Your task to perform on an android device: Toggle the flashlight Image 0: 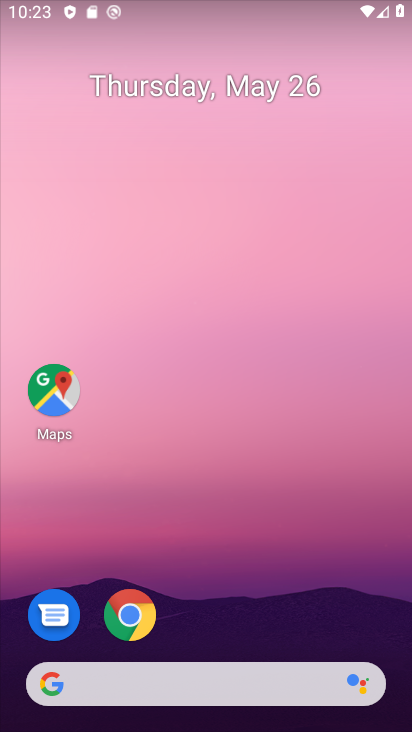
Step 0: drag from (315, 0) to (285, 324)
Your task to perform on an android device: Toggle the flashlight Image 1: 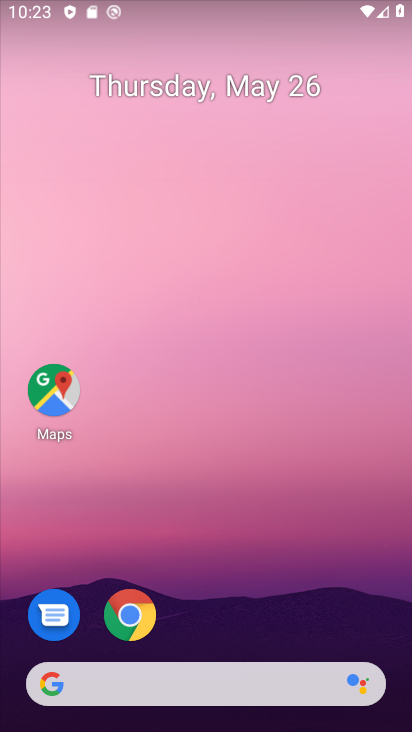
Step 1: drag from (301, 4) to (193, 554)
Your task to perform on an android device: Toggle the flashlight Image 2: 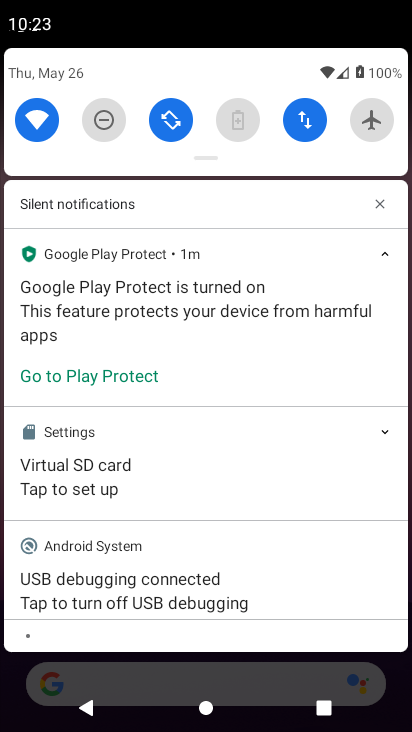
Step 2: drag from (235, 151) to (132, 657)
Your task to perform on an android device: Toggle the flashlight Image 3: 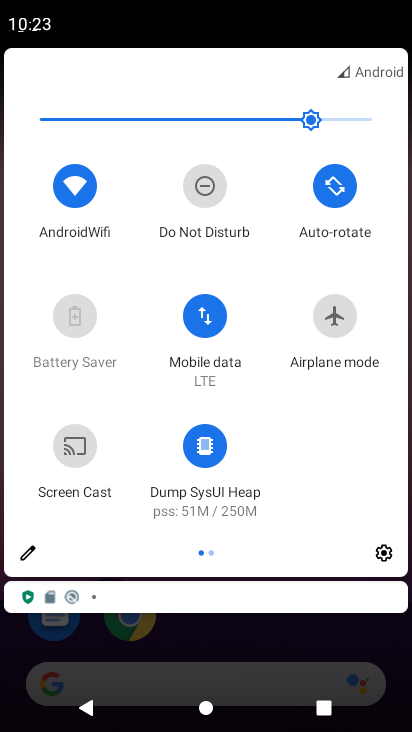
Step 3: click (20, 553)
Your task to perform on an android device: Toggle the flashlight Image 4: 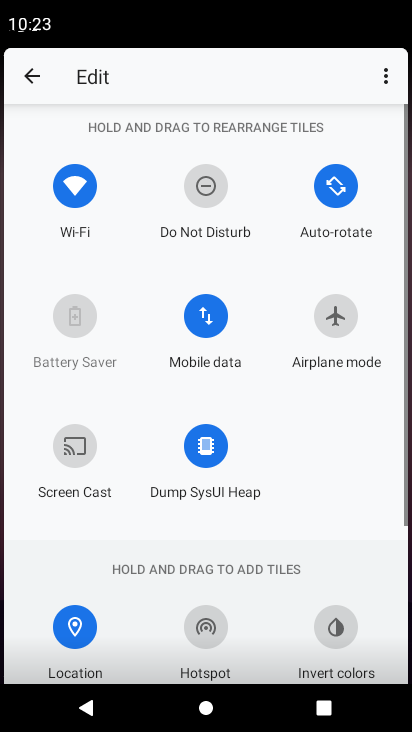
Step 4: click (116, 506)
Your task to perform on an android device: Toggle the flashlight Image 5: 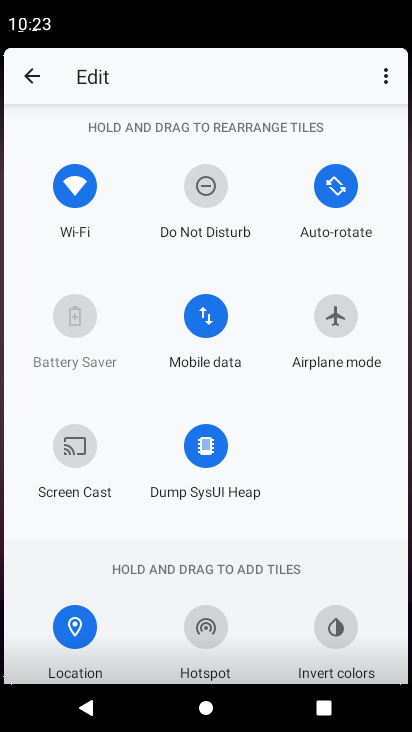
Step 5: task complete